Your task to perform on an android device: turn on priority inbox in the gmail app Image 0: 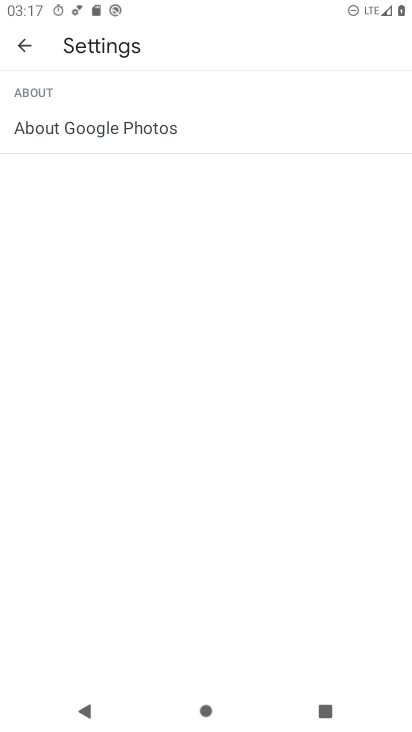
Step 0: press home button
Your task to perform on an android device: turn on priority inbox in the gmail app Image 1: 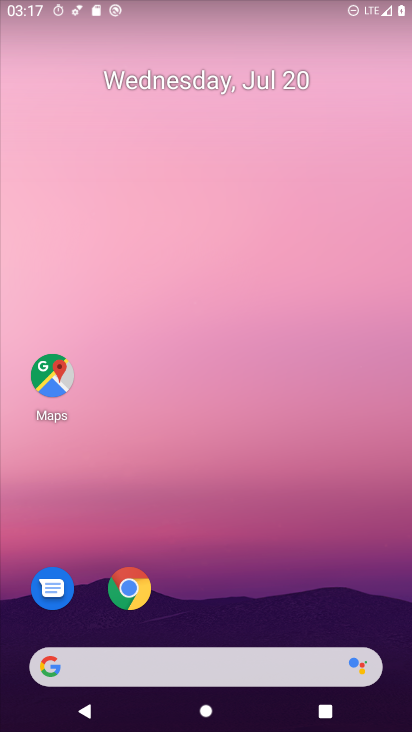
Step 1: drag from (207, 639) to (108, 101)
Your task to perform on an android device: turn on priority inbox in the gmail app Image 2: 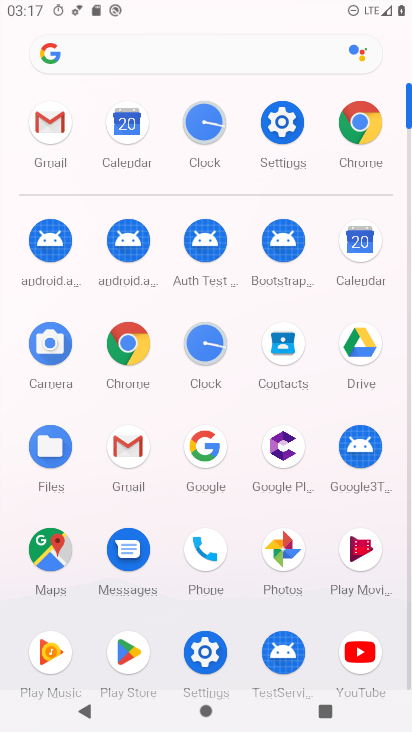
Step 2: click (144, 456)
Your task to perform on an android device: turn on priority inbox in the gmail app Image 3: 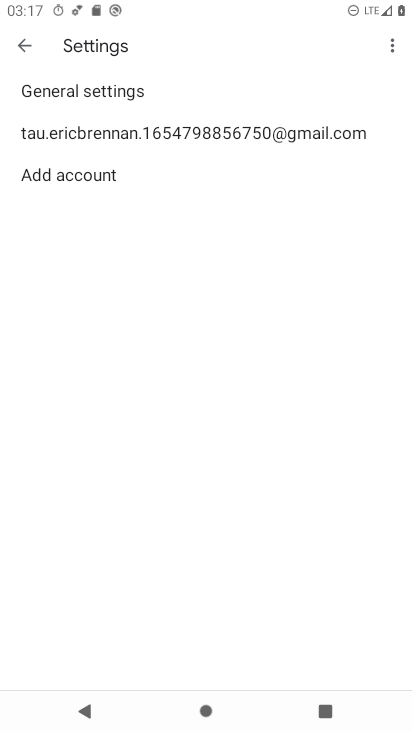
Step 3: click (59, 134)
Your task to perform on an android device: turn on priority inbox in the gmail app Image 4: 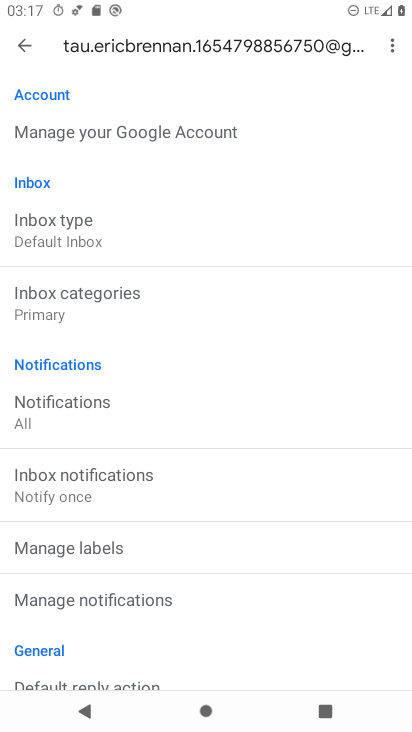
Step 4: click (52, 218)
Your task to perform on an android device: turn on priority inbox in the gmail app Image 5: 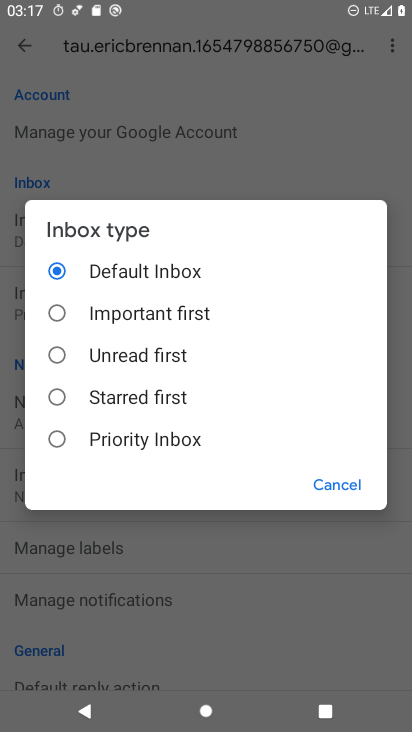
Step 5: click (74, 435)
Your task to perform on an android device: turn on priority inbox in the gmail app Image 6: 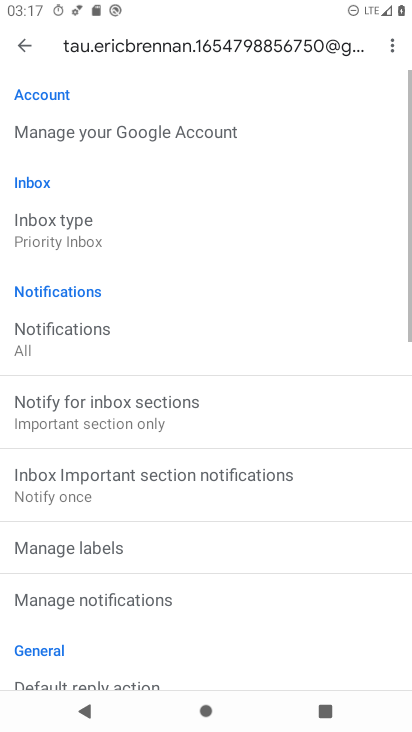
Step 6: task complete